Your task to perform on an android device: Go to battery settings Image 0: 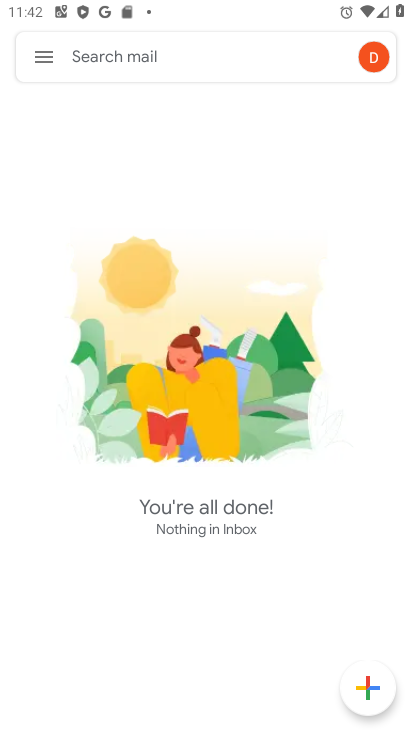
Step 0: press home button
Your task to perform on an android device: Go to battery settings Image 1: 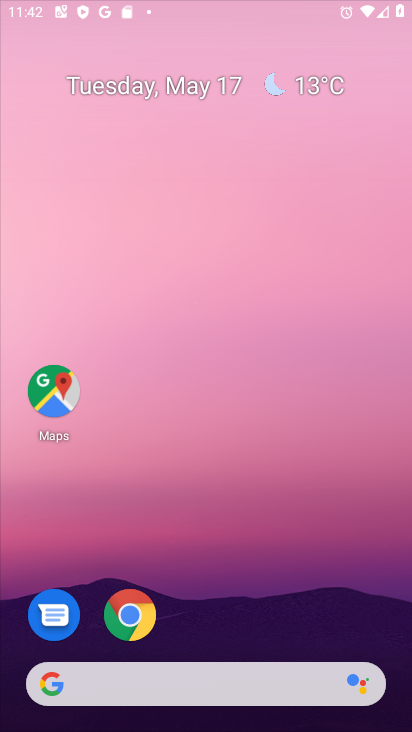
Step 1: drag from (348, 552) to (365, 116)
Your task to perform on an android device: Go to battery settings Image 2: 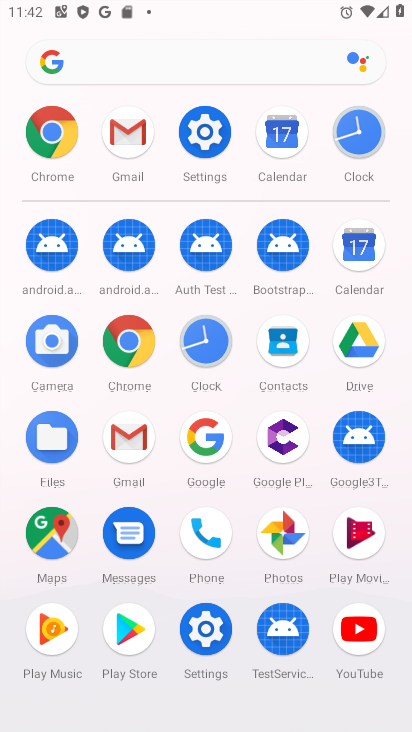
Step 2: click (218, 137)
Your task to perform on an android device: Go to battery settings Image 3: 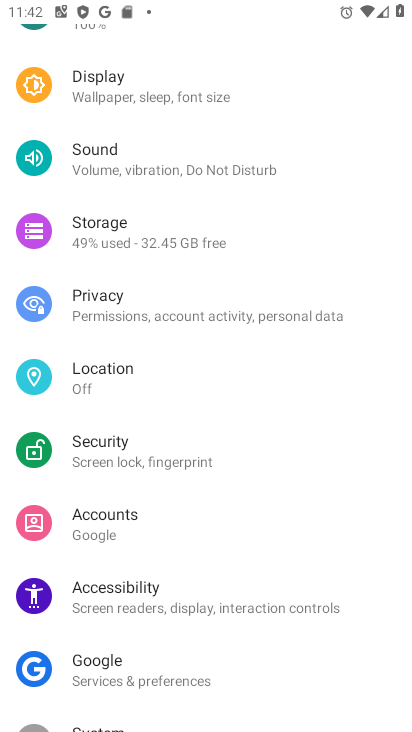
Step 3: drag from (243, 581) to (298, 147)
Your task to perform on an android device: Go to battery settings Image 4: 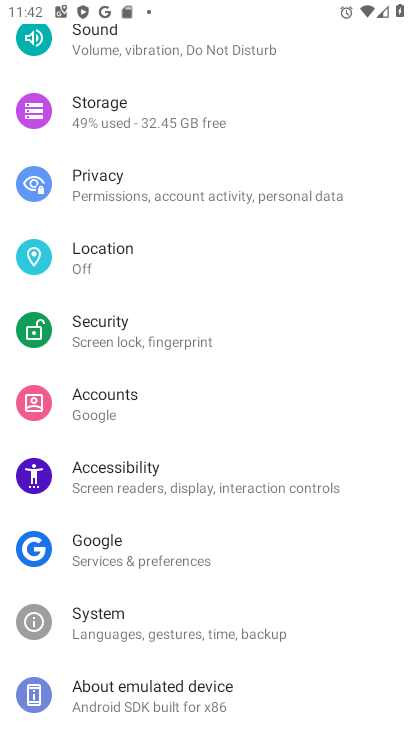
Step 4: drag from (215, 251) to (253, 710)
Your task to perform on an android device: Go to battery settings Image 5: 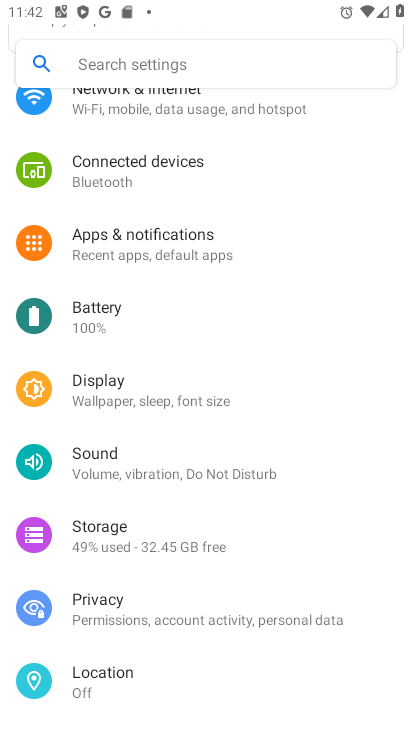
Step 5: drag from (240, 259) to (254, 625)
Your task to perform on an android device: Go to battery settings Image 6: 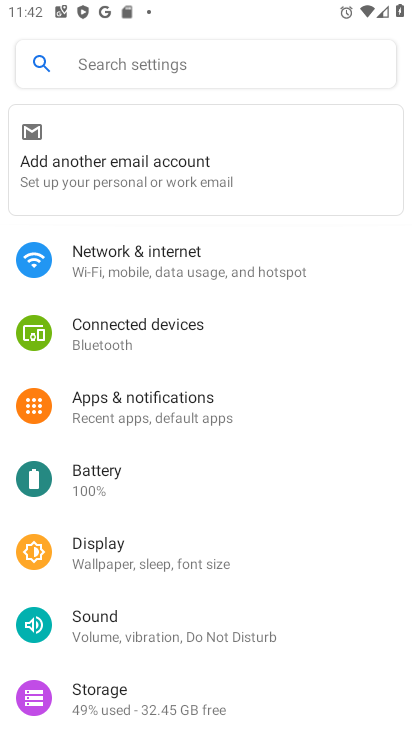
Step 6: click (132, 488)
Your task to perform on an android device: Go to battery settings Image 7: 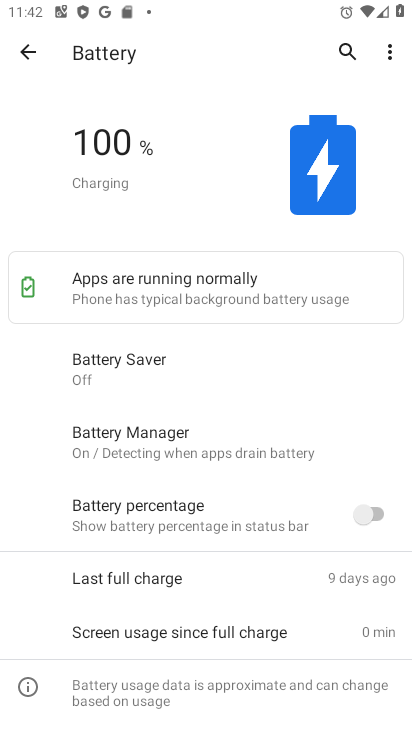
Step 7: task complete